Your task to perform on an android device: Open privacy settings Image 0: 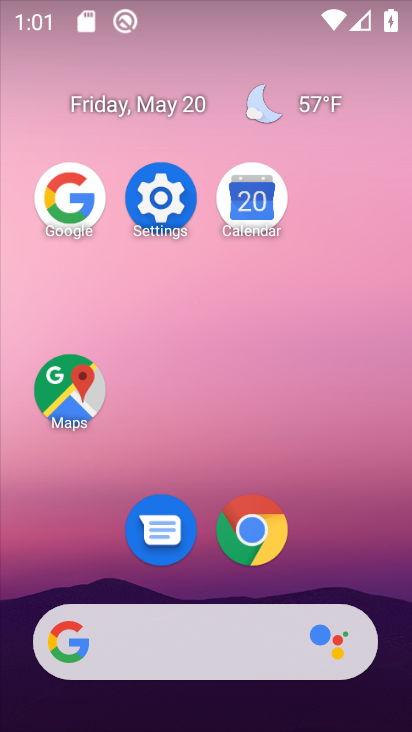
Step 0: click (174, 208)
Your task to perform on an android device: Open privacy settings Image 1: 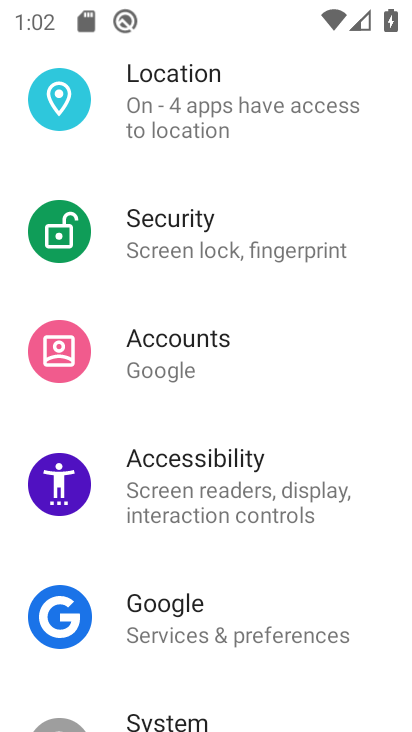
Step 1: drag from (284, 178) to (321, 708)
Your task to perform on an android device: Open privacy settings Image 2: 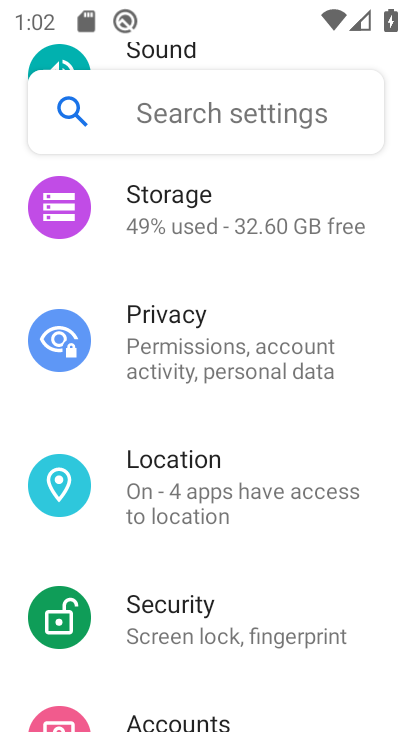
Step 2: click (316, 368)
Your task to perform on an android device: Open privacy settings Image 3: 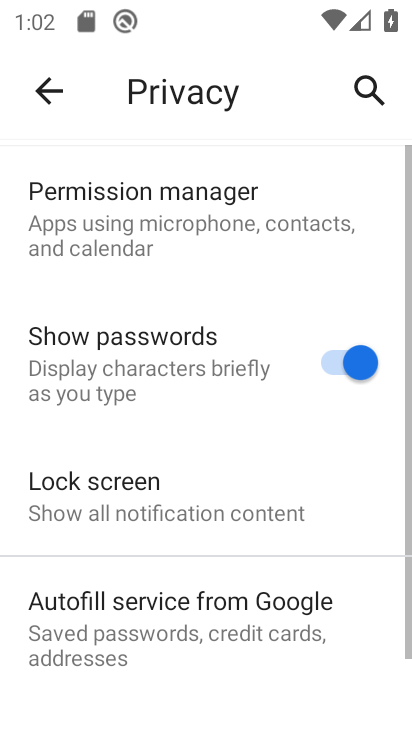
Step 3: task complete